Your task to perform on an android device: open chrome privacy settings Image 0: 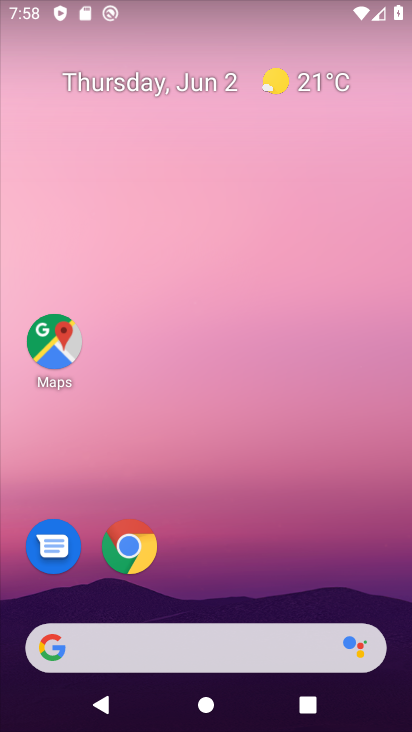
Step 0: drag from (238, 561) to (188, 155)
Your task to perform on an android device: open chrome privacy settings Image 1: 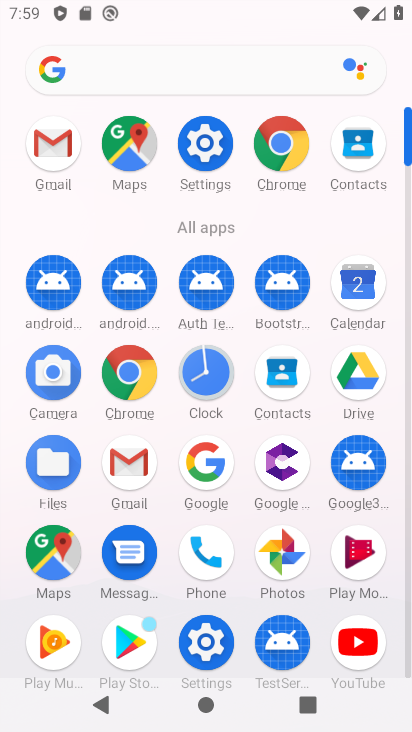
Step 1: click (273, 147)
Your task to perform on an android device: open chrome privacy settings Image 2: 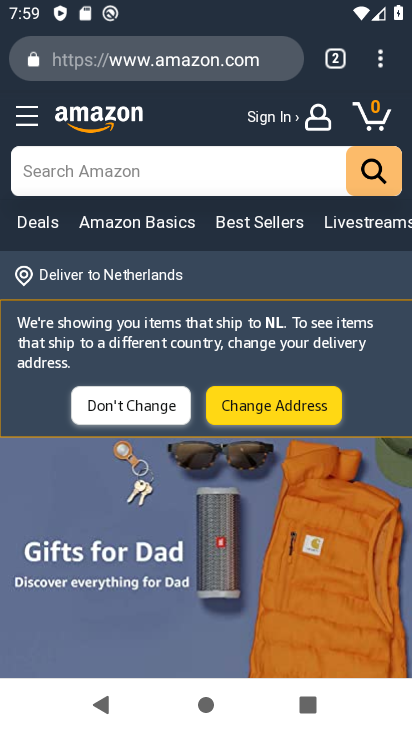
Step 2: click (383, 69)
Your task to perform on an android device: open chrome privacy settings Image 3: 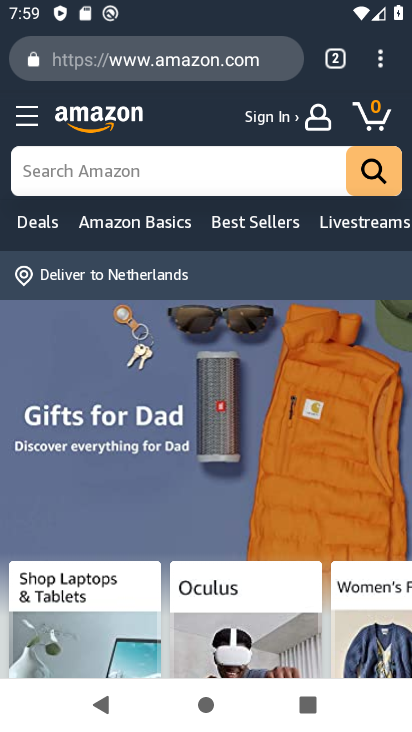
Step 3: click (385, 60)
Your task to perform on an android device: open chrome privacy settings Image 4: 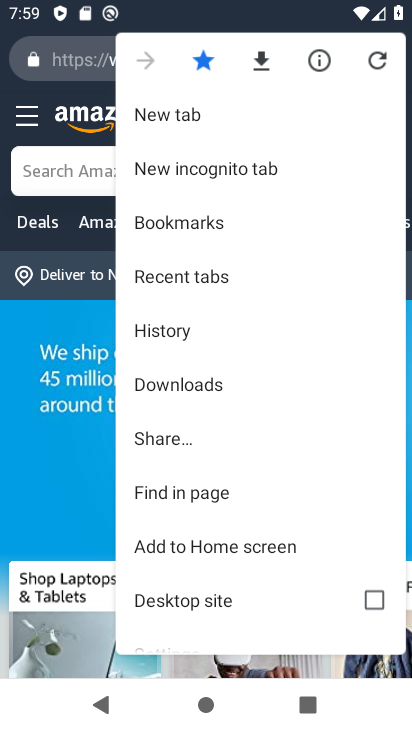
Step 4: drag from (275, 411) to (281, 158)
Your task to perform on an android device: open chrome privacy settings Image 5: 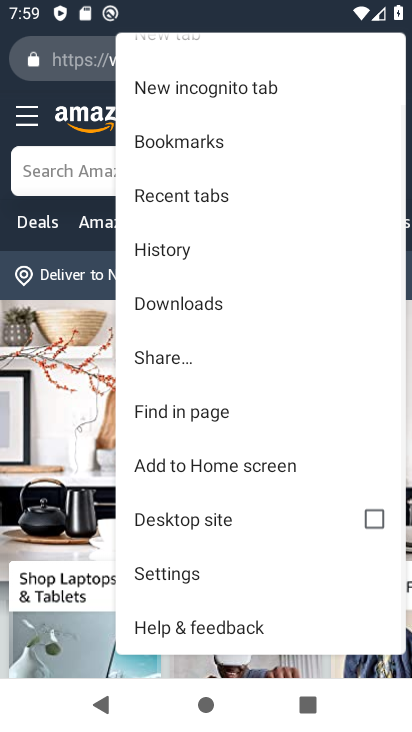
Step 5: click (214, 566)
Your task to perform on an android device: open chrome privacy settings Image 6: 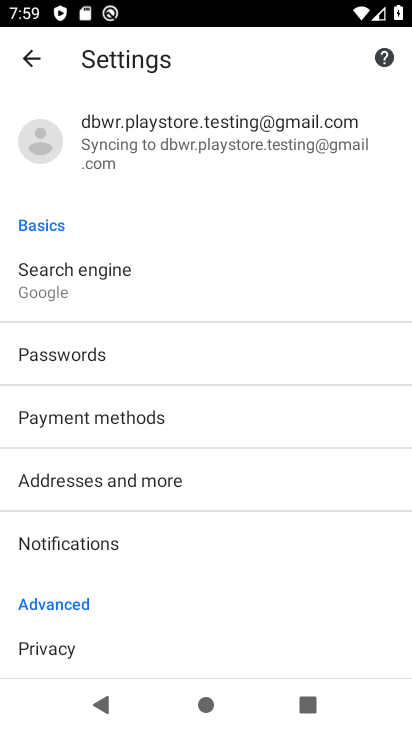
Step 6: click (222, 655)
Your task to perform on an android device: open chrome privacy settings Image 7: 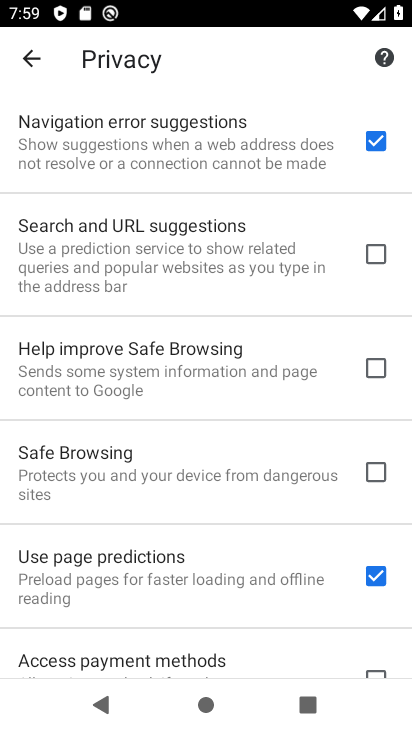
Step 7: task complete